Your task to perform on an android device: Go to Yahoo.com Image 0: 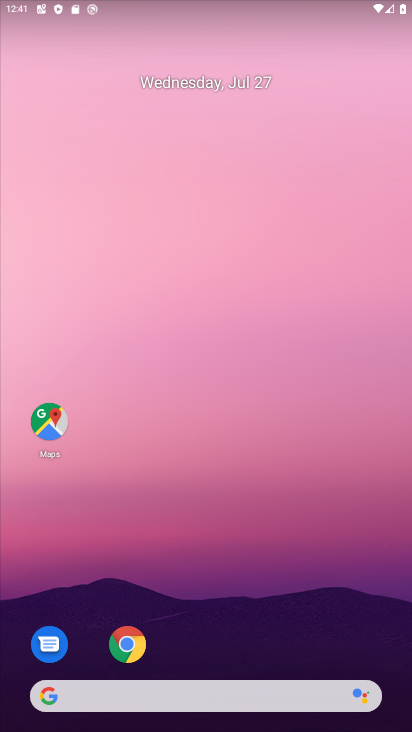
Step 0: press home button
Your task to perform on an android device: Go to Yahoo.com Image 1: 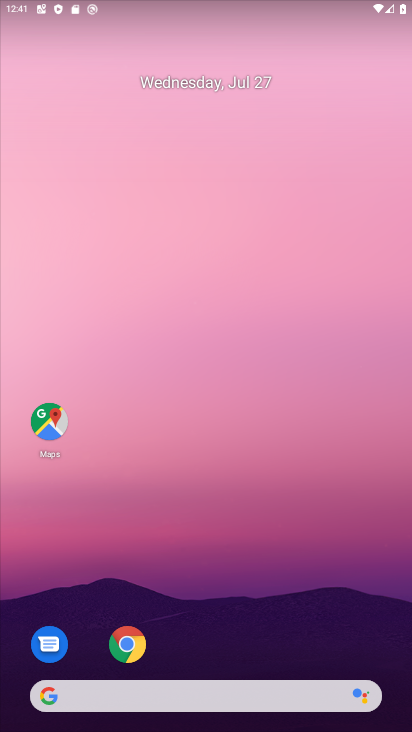
Step 1: click (126, 648)
Your task to perform on an android device: Go to Yahoo.com Image 2: 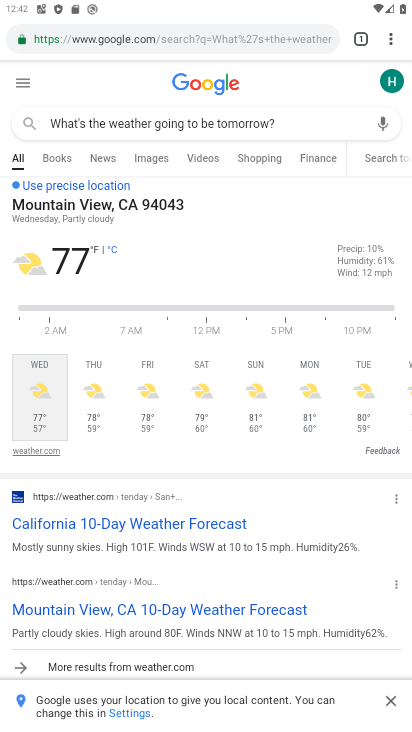
Step 2: click (190, 33)
Your task to perform on an android device: Go to Yahoo.com Image 3: 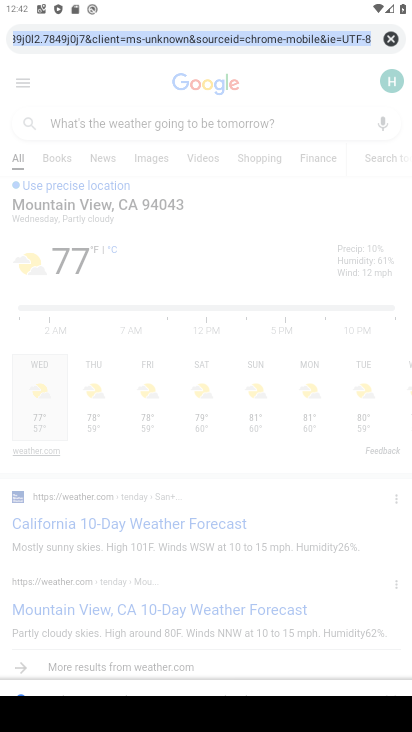
Step 3: type "Yahoo.com"
Your task to perform on an android device: Go to Yahoo.com Image 4: 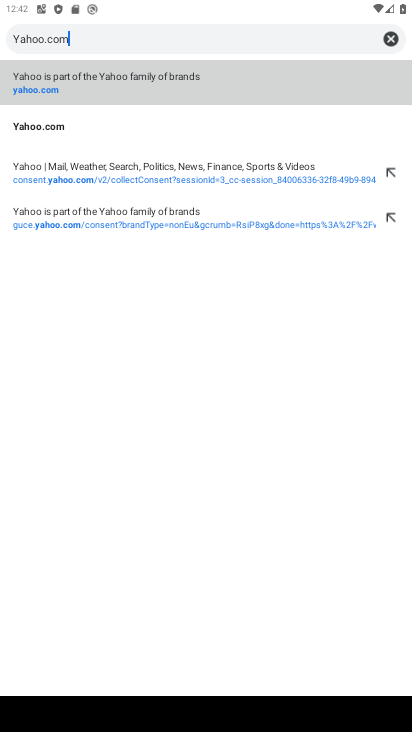
Step 4: type ""
Your task to perform on an android device: Go to Yahoo.com Image 5: 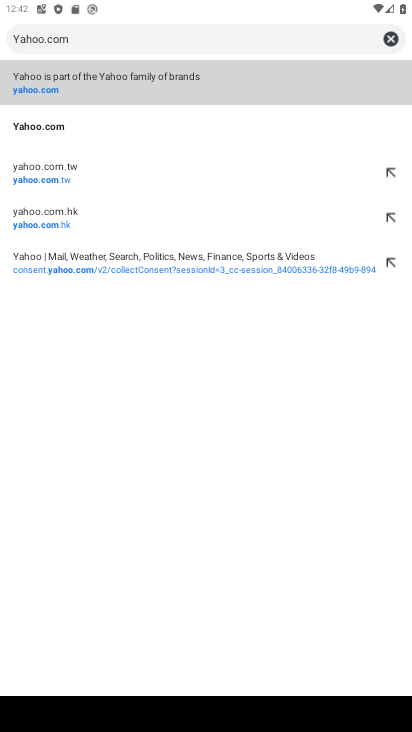
Step 5: click (64, 91)
Your task to perform on an android device: Go to Yahoo.com Image 6: 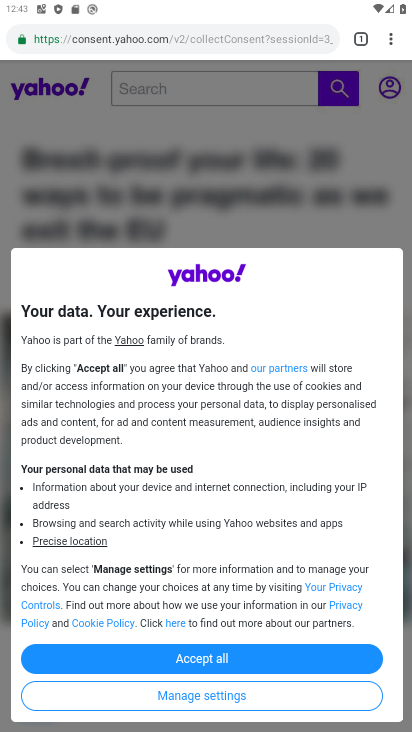
Step 6: task complete